Your task to perform on an android device: Go to Android settings Image 0: 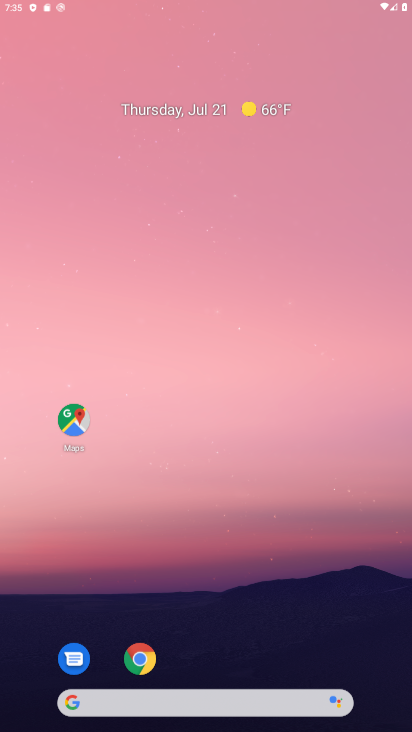
Step 0: drag from (206, 711) to (305, 240)
Your task to perform on an android device: Go to Android settings Image 1: 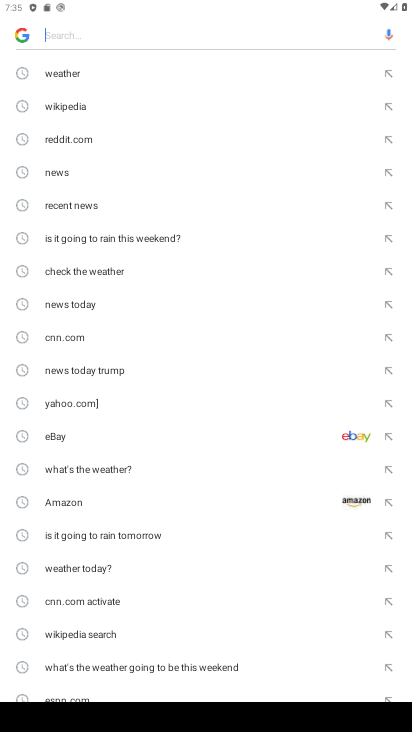
Step 1: drag from (177, 559) to (239, 259)
Your task to perform on an android device: Go to Android settings Image 2: 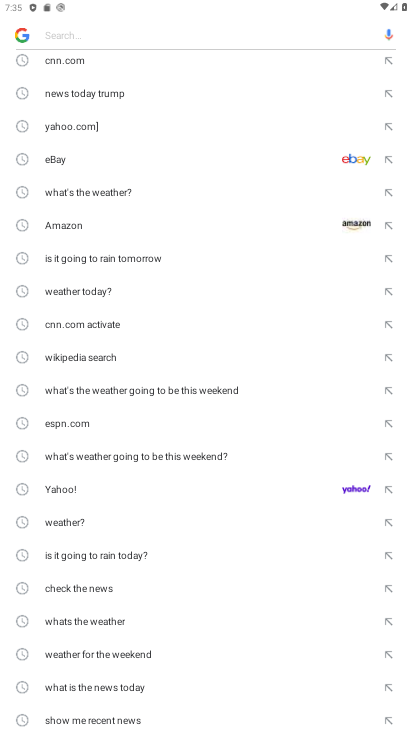
Step 2: press home button
Your task to perform on an android device: Go to Android settings Image 3: 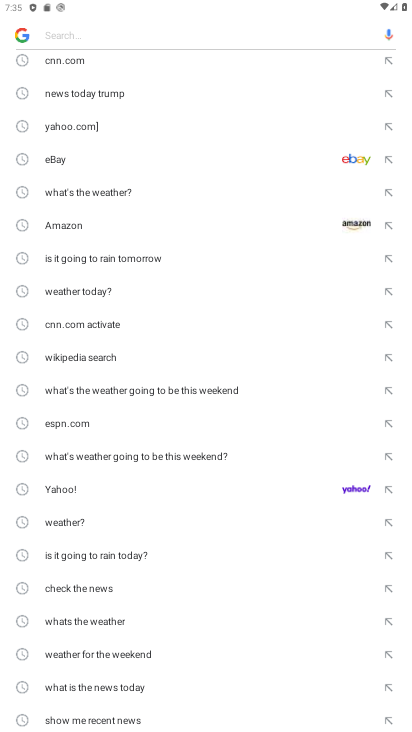
Step 3: press home button
Your task to perform on an android device: Go to Android settings Image 4: 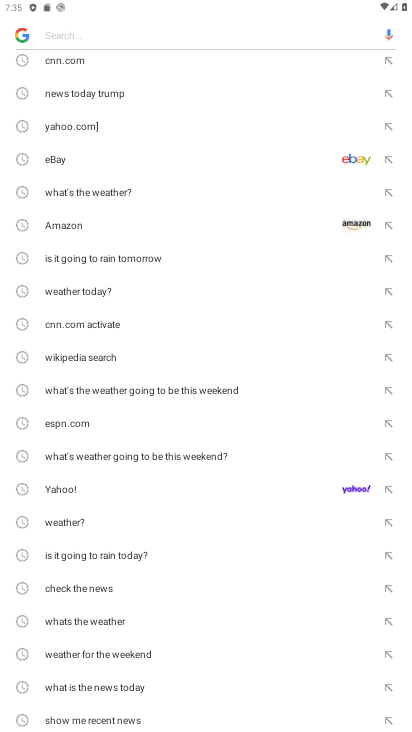
Step 4: click (189, 97)
Your task to perform on an android device: Go to Android settings Image 5: 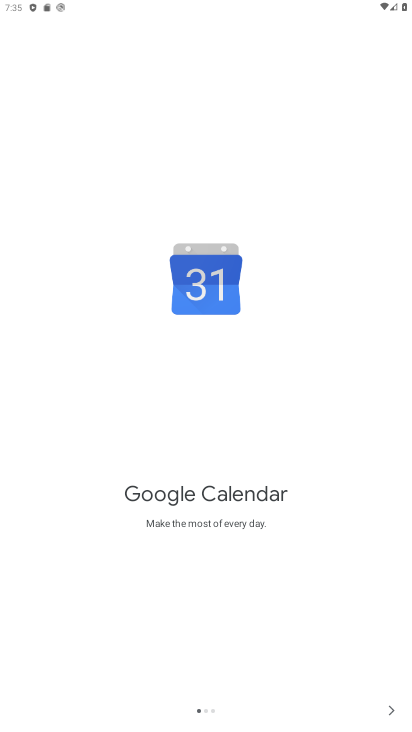
Step 5: press home button
Your task to perform on an android device: Go to Android settings Image 6: 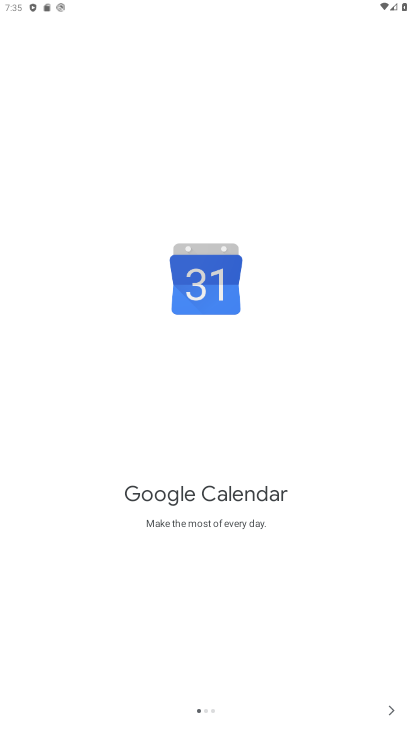
Step 6: press home button
Your task to perform on an android device: Go to Android settings Image 7: 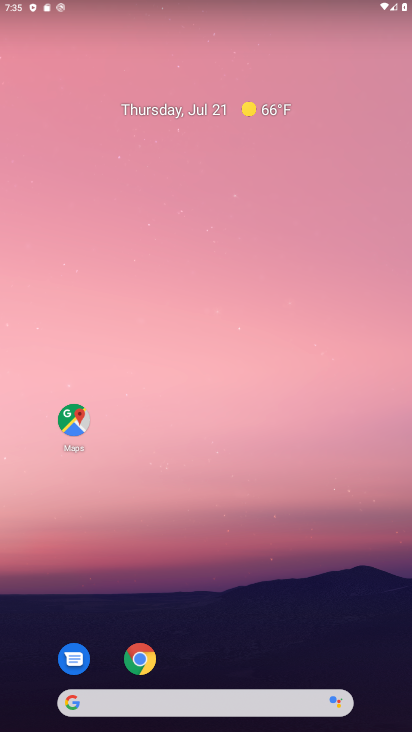
Step 7: drag from (185, 639) to (203, 0)
Your task to perform on an android device: Go to Android settings Image 8: 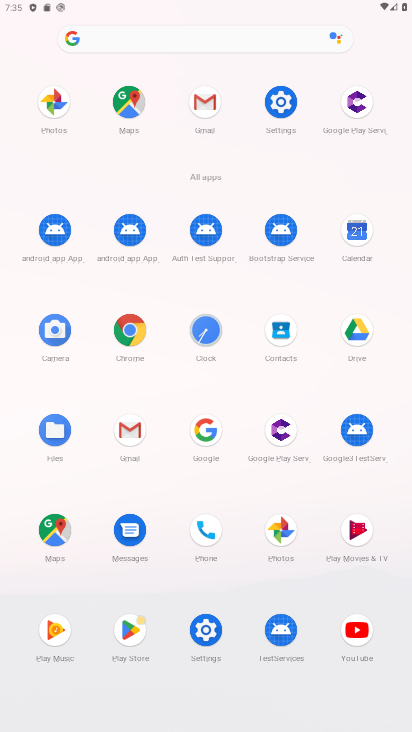
Step 8: click (275, 94)
Your task to perform on an android device: Go to Android settings Image 9: 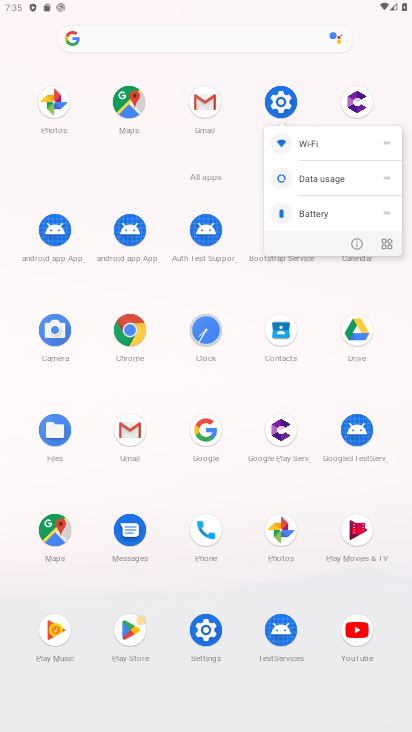
Step 9: click (357, 247)
Your task to perform on an android device: Go to Android settings Image 10: 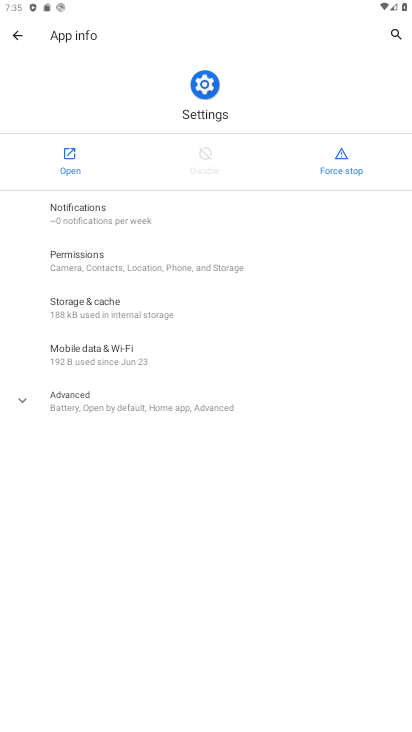
Step 10: click (63, 155)
Your task to perform on an android device: Go to Android settings Image 11: 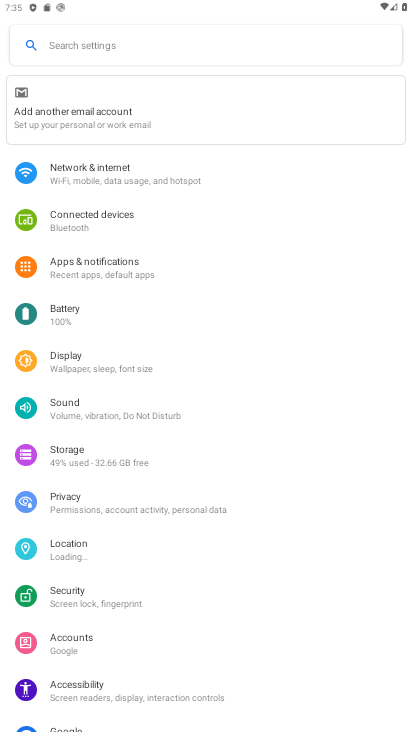
Step 11: drag from (194, 622) to (232, 2)
Your task to perform on an android device: Go to Android settings Image 12: 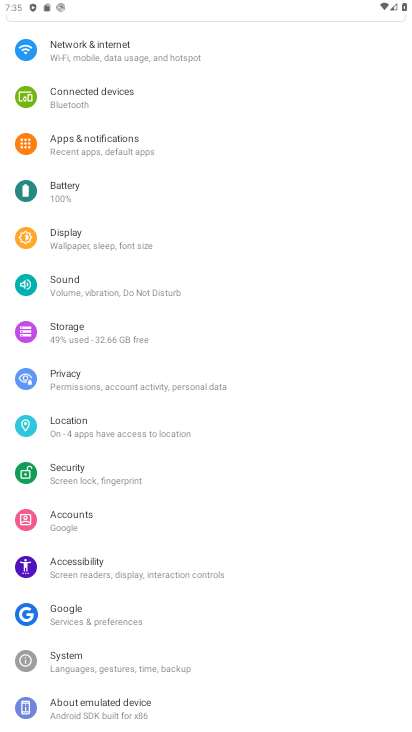
Step 12: drag from (140, 655) to (190, 5)
Your task to perform on an android device: Go to Android settings Image 13: 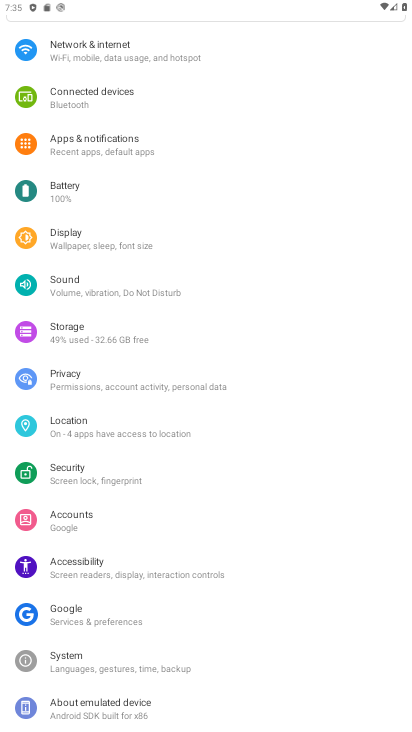
Step 13: click (99, 717)
Your task to perform on an android device: Go to Android settings Image 14: 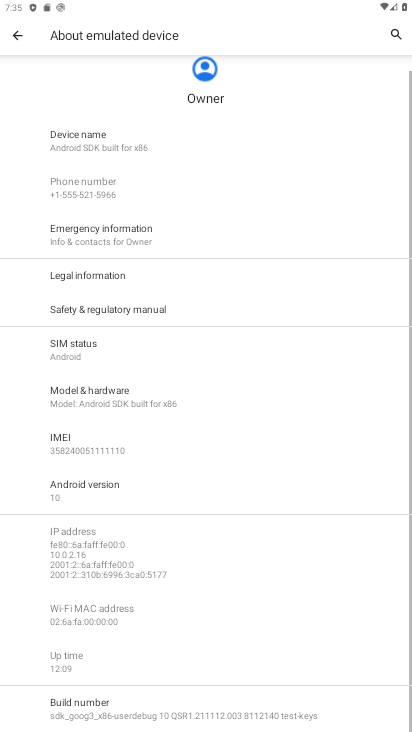
Step 14: click (139, 491)
Your task to perform on an android device: Go to Android settings Image 15: 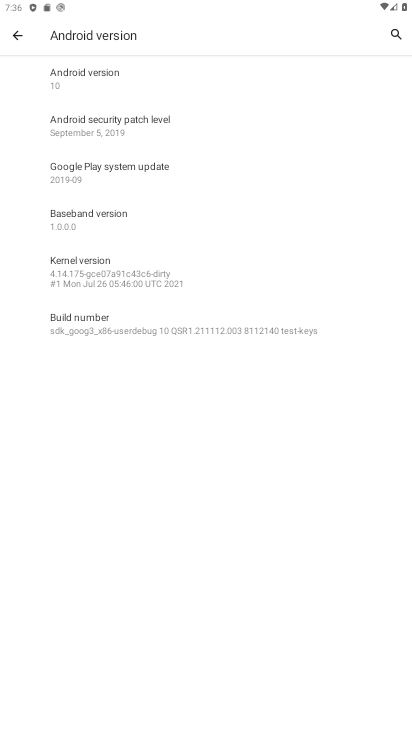
Step 15: click (143, 74)
Your task to perform on an android device: Go to Android settings Image 16: 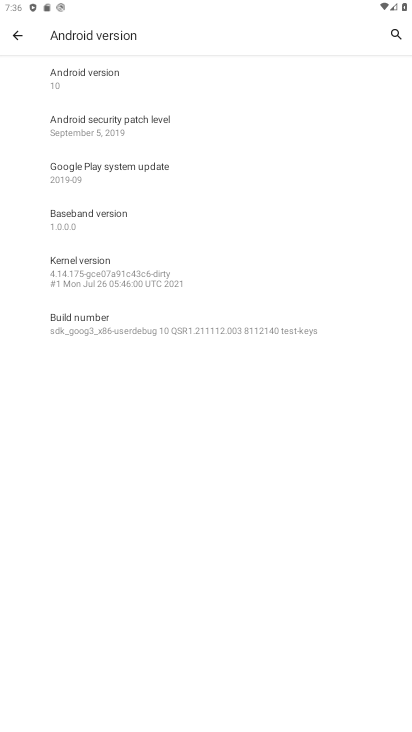
Step 16: task complete